Your task to perform on an android device: Open CNN.com Image 0: 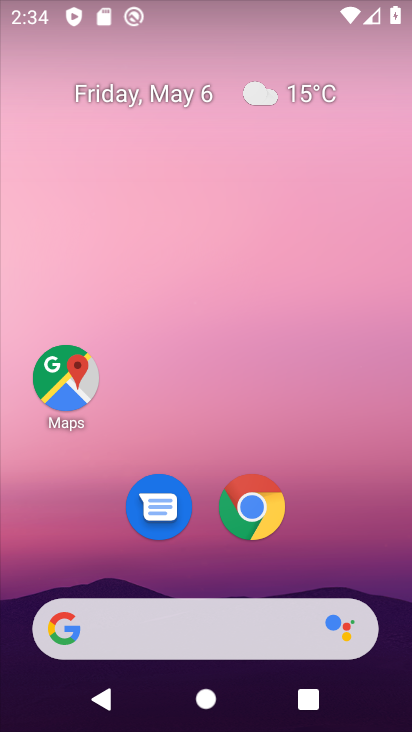
Step 0: drag from (350, 523) to (351, 195)
Your task to perform on an android device: Open CNN.com Image 1: 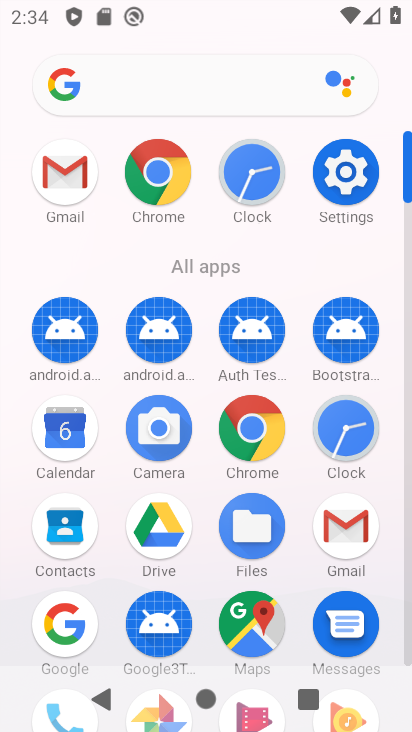
Step 1: click (153, 154)
Your task to perform on an android device: Open CNN.com Image 2: 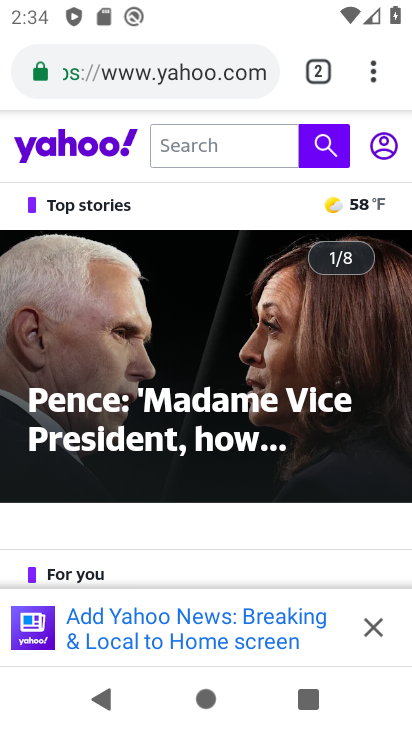
Step 2: click (189, 77)
Your task to perform on an android device: Open CNN.com Image 3: 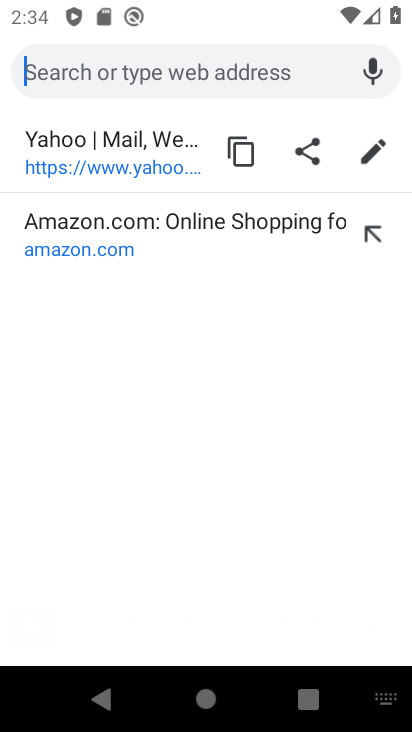
Step 3: type "cnn.com"
Your task to perform on an android device: Open CNN.com Image 4: 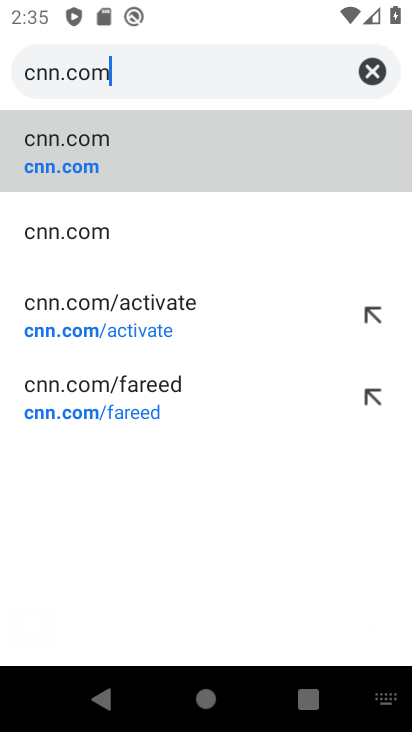
Step 4: click (69, 148)
Your task to perform on an android device: Open CNN.com Image 5: 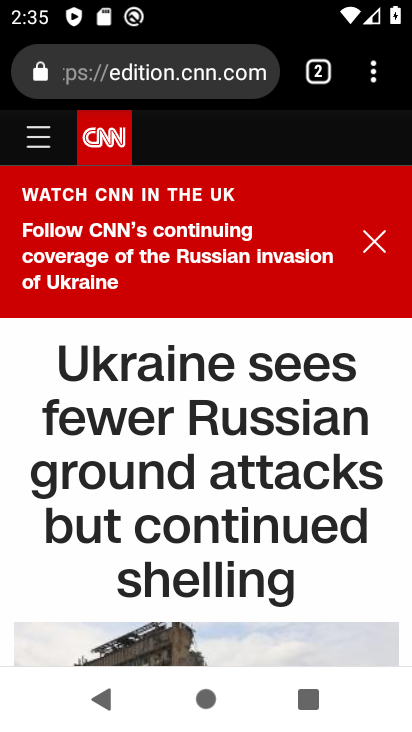
Step 5: task complete